Your task to perform on an android device: Open Google Maps Image 0: 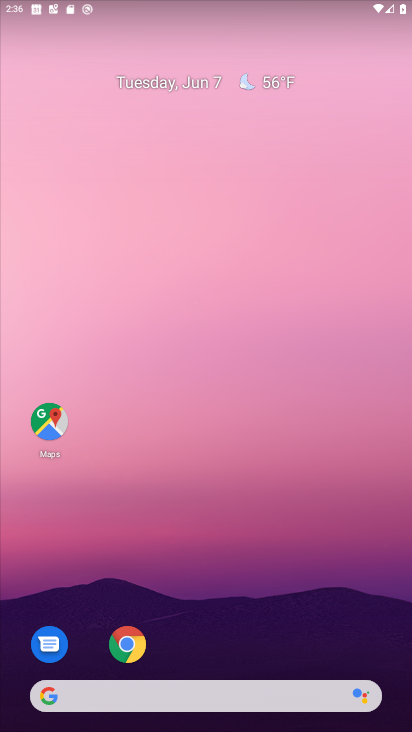
Step 0: drag from (198, 664) to (213, 17)
Your task to perform on an android device: Open Google Maps Image 1: 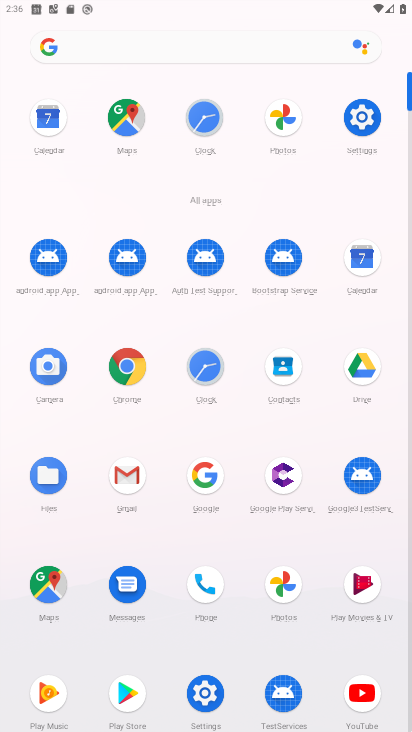
Step 1: click (40, 584)
Your task to perform on an android device: Open Google Maps Image 2: 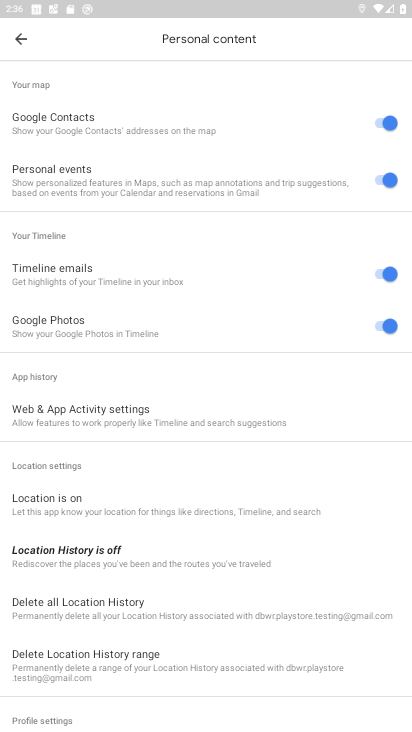
Step 2: click (19, 41)
Your task to perform on an android device: Open Google Maps Image 3: 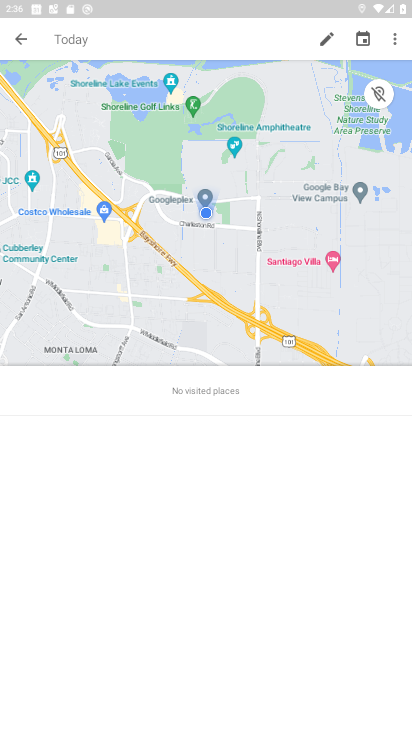
Step 3: click (19, 36)
Your task to perform on an android device: Open Google Maps Image 4: 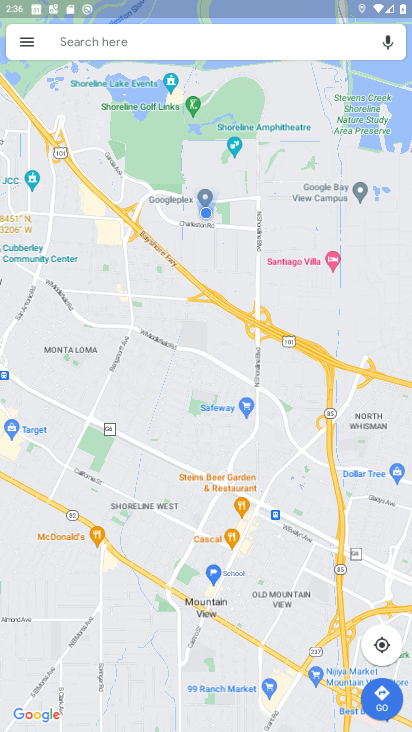
Step 4: drag from (235, 281) to (278, 504)
Your task to perform on an android device: Open Google Maps Image 5: 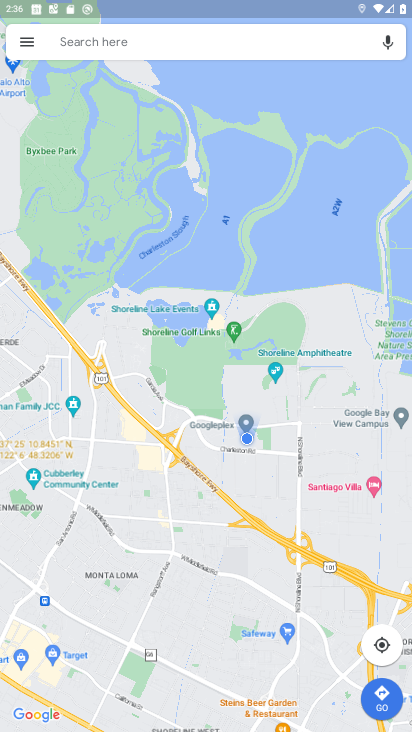
Step 5: click (282, 522)
Your task to perform on an android device: Open Google Maps Image 6: 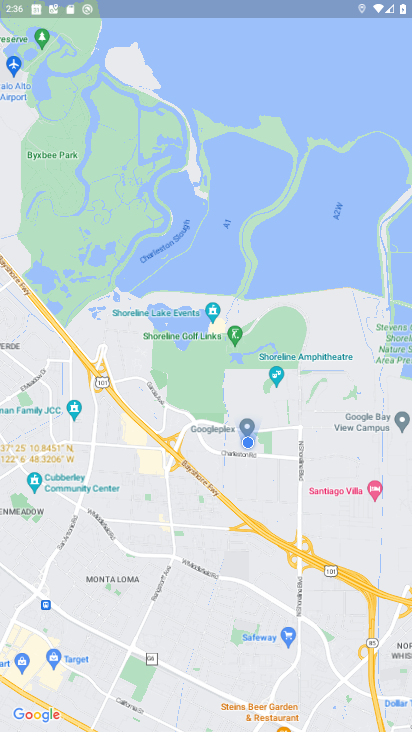
Step 6: task complete